Your task to perform on an android device: turn on data saver in the chrome app Image 0: 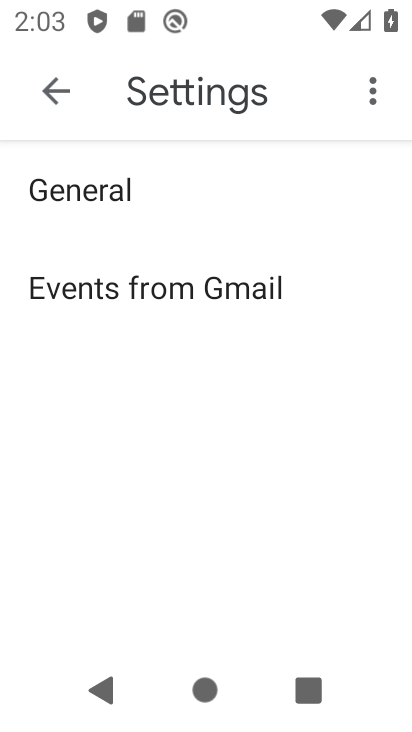
Step 0: press back button
Your task to perform on an android device: turn on data saver in the chrome app Image 1: 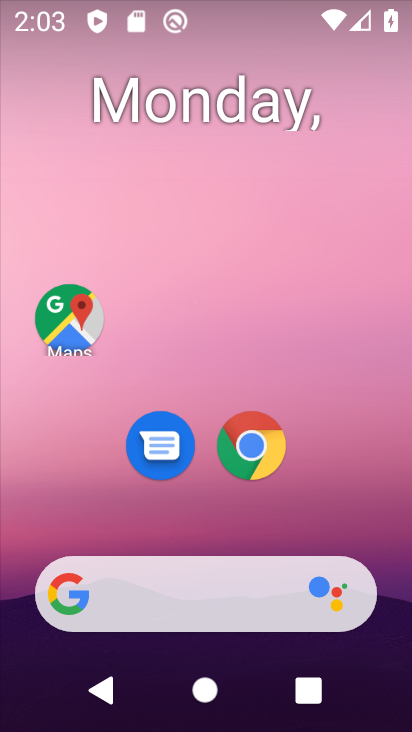
Step 1: drag from (334, 498) to (269, 8)
Your task to perform on an android device: turn on data saver in the chrome app Image 2: 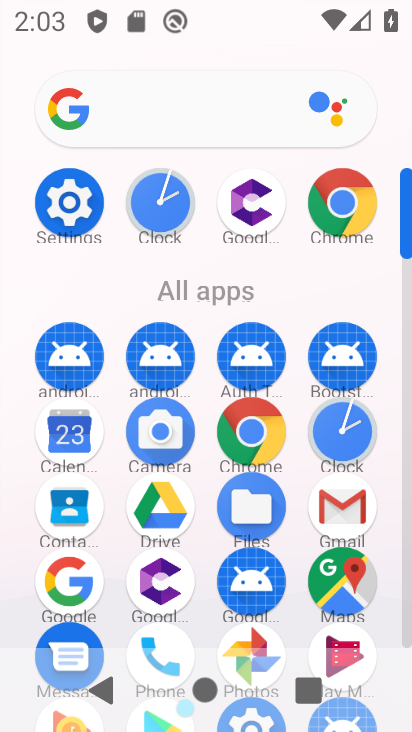
Step 2: drag from (6, 583) to (13, 218)
Your task to perform on an android device: turn on data saver in the chrome app Image 3: 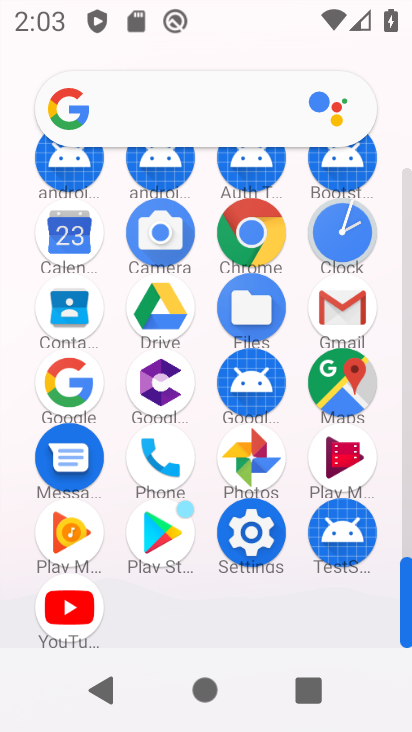
Step 3: click (252, 231)
Your task to perform on an android device: turn on data saver in the chrome app Image 4: 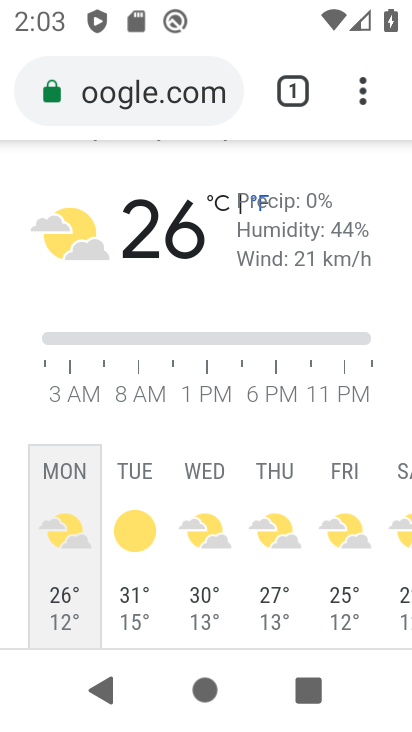
Step 4: drag from (361, 89) to (177, 474)
Your task to perform on an android device: turn on data saver in the chrome app Image 5: 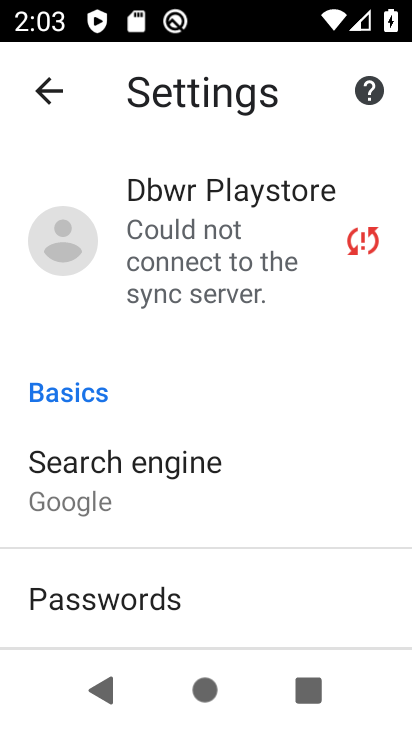
Step 5: drag from (220, 591) to (250, 206)
Your task to perform on an android device: turn on data saver in the chrome app Image 6: 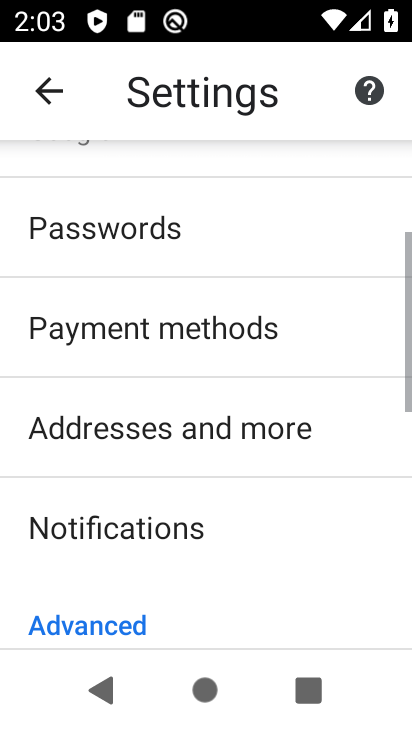
Step 6: drag from (215, 570) to (218, 219)
Your task to perform on an android device: turn on data saver in the chrome app Image 7: 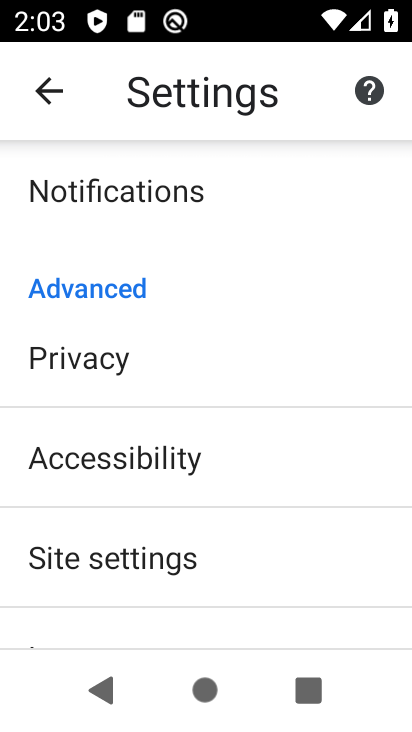
Step 7: drag from (209, 569) to (215, 208)
Your task to perform on an android device: turn on data saver in the chrome app Image 8: 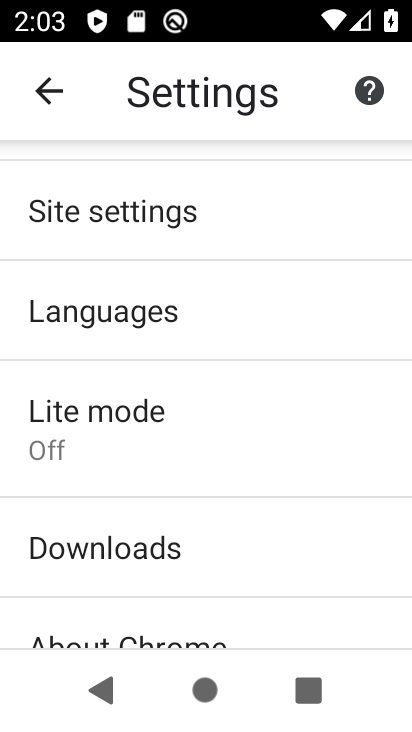
Step 8: drag from (219, 568) to (215, 276)
Your task to perform on an android device: turn on data saver in the chrome app Image 9: 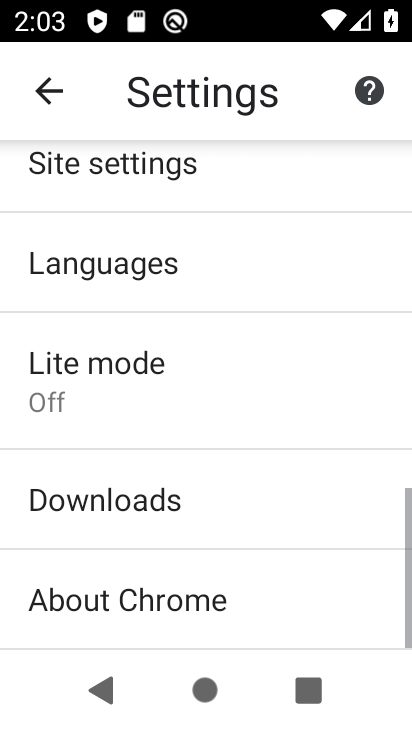
Step 9: drag from (181, 633) to (226, 317)
Your task to perform on an android device: turn on data saver in the chrome app Image 10: 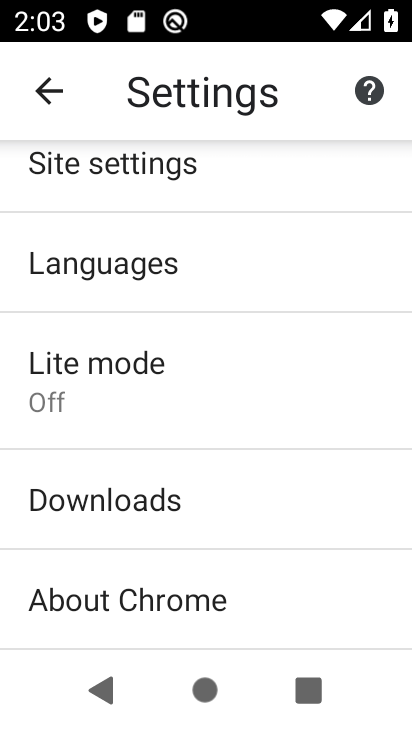
Step 10: drag from (222, 615) to (217, 277)
Your task to perform on an android device: turn on data saver in the chrome app Image 11: 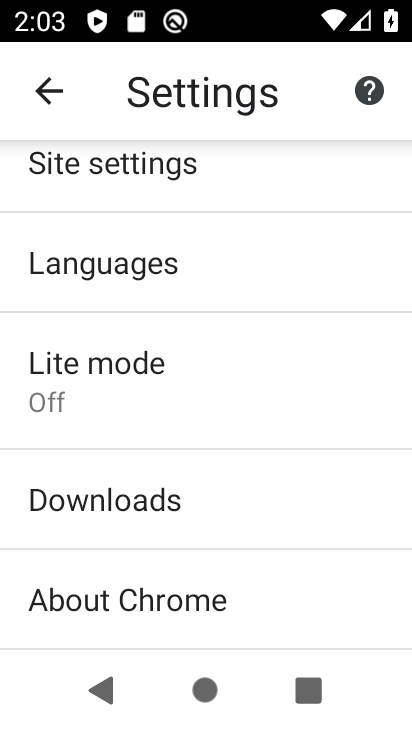
Step 11: drag from (228, 567) to (228, 283)
Your task to perform on an android device: turn on data saver in the chrome app Image 12: 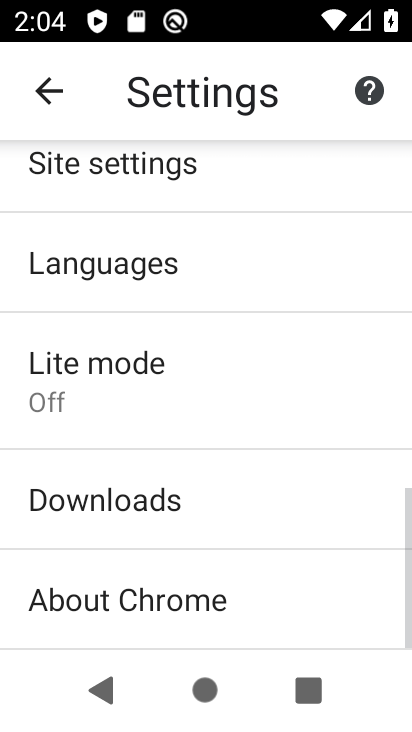
Step 12: drag from (243, 594) to (239, 287)
Your task to perform on an android device: turn on data saver in the chrome app Image 13: 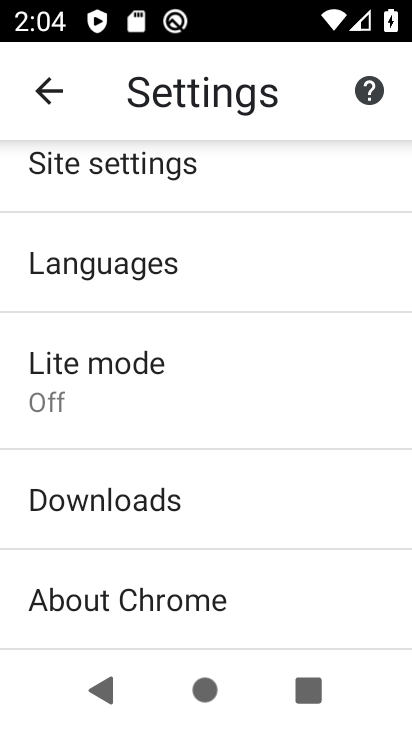
Step 13: click (157, 377)
Your task to perform on an android device: turn on data saver in the chrome app Image 14: 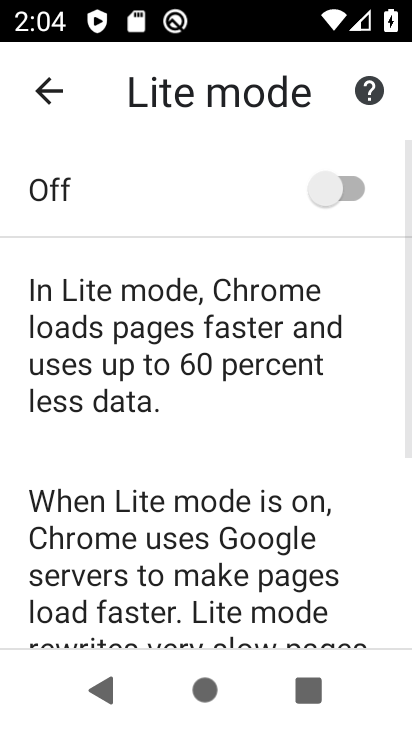
Step 14: click (346, 176)
Your task to perform on an android device: turn on data saver in the chrome app Image 15: 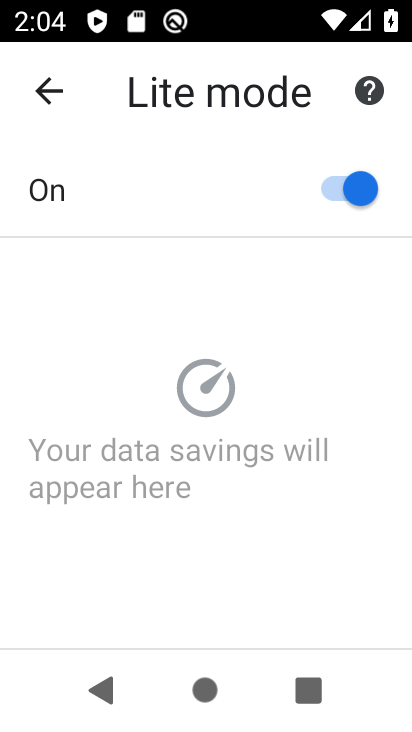
Step 15: task complete